Your task to perform on an android device: turn off wifi Image 0: 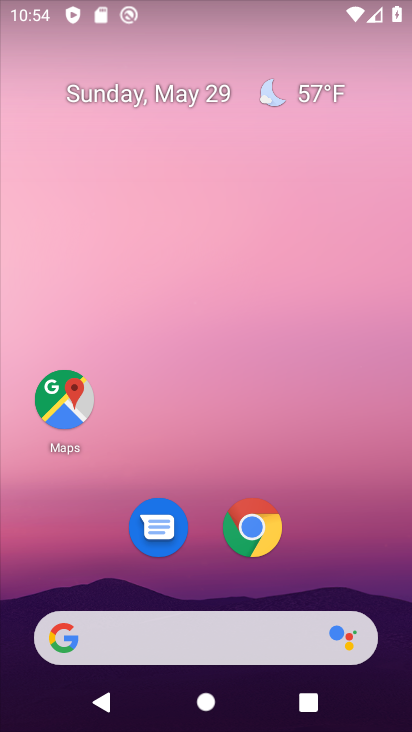
Step 0: drag from (218, 8) to (285, 691)
Your task to perform on an android device: turn off wifi Image 1: 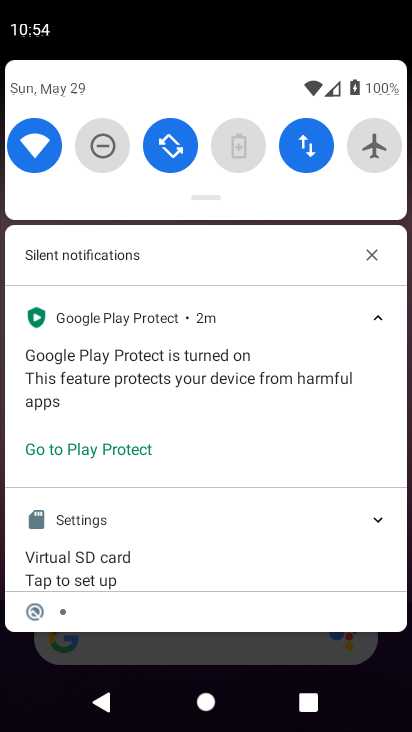
Step 1: click (40, 164)
Your task to perform on an android device: turn off wifi Image 2: 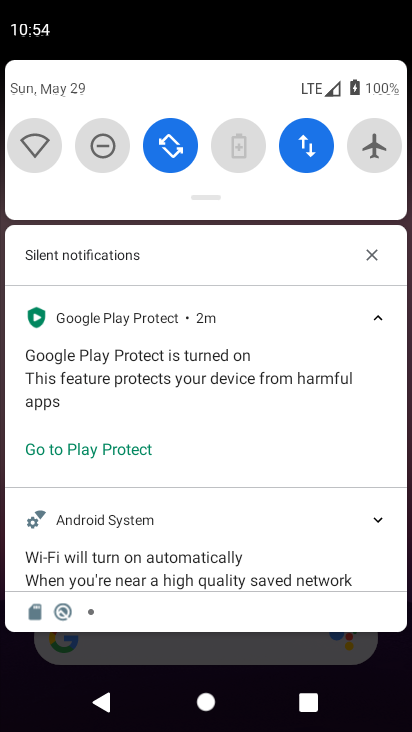
Step 2: task complete